Your task to perform on an android device: turn on airplane mode Image 0: 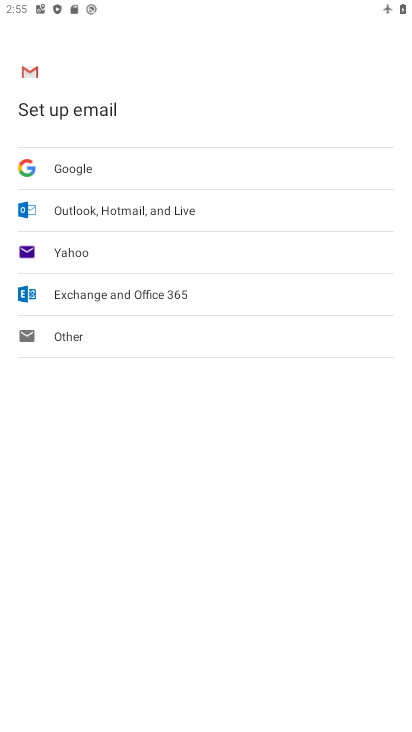
Step 0: press home button
Your task to perform on an android device: turn on airplane mode Image 1: 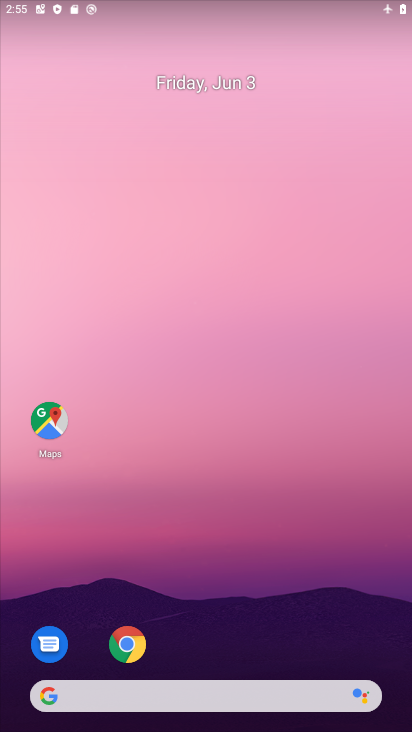
Step 1: drag from (216, 647) to (207, 265)
Your task to perform on an android device: turn on airplane mode Image 2: 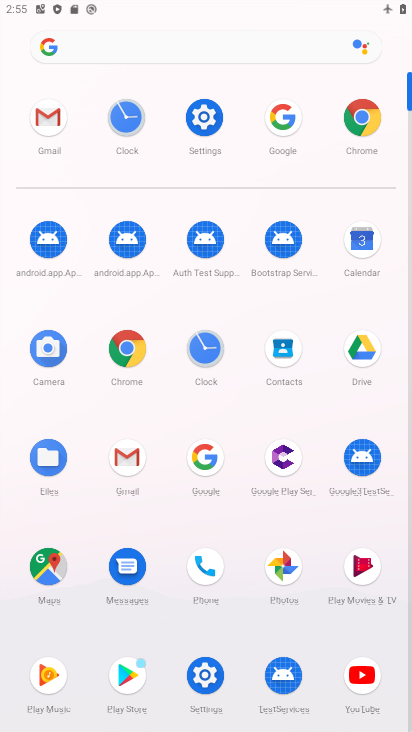
Step 2: click (204, 130)
Your task to perform on an android device: turn on airplane mode Image 3: 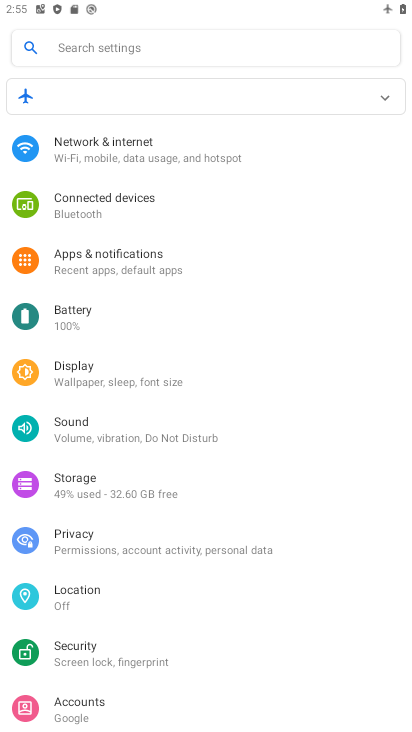
Step 3: click (187, 168)
Your task to perform on an android device: turn on airplane mode Image 4: 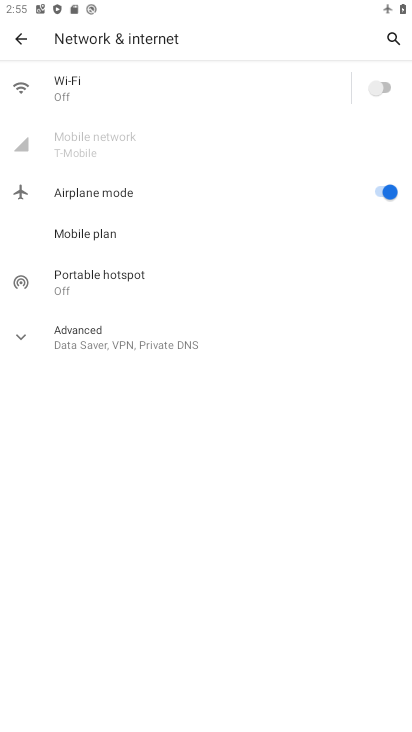
Step 4: task complete